Your task to perform on an android device: open app "WhatsApp Messenger" (install if not already installed) Image 0: 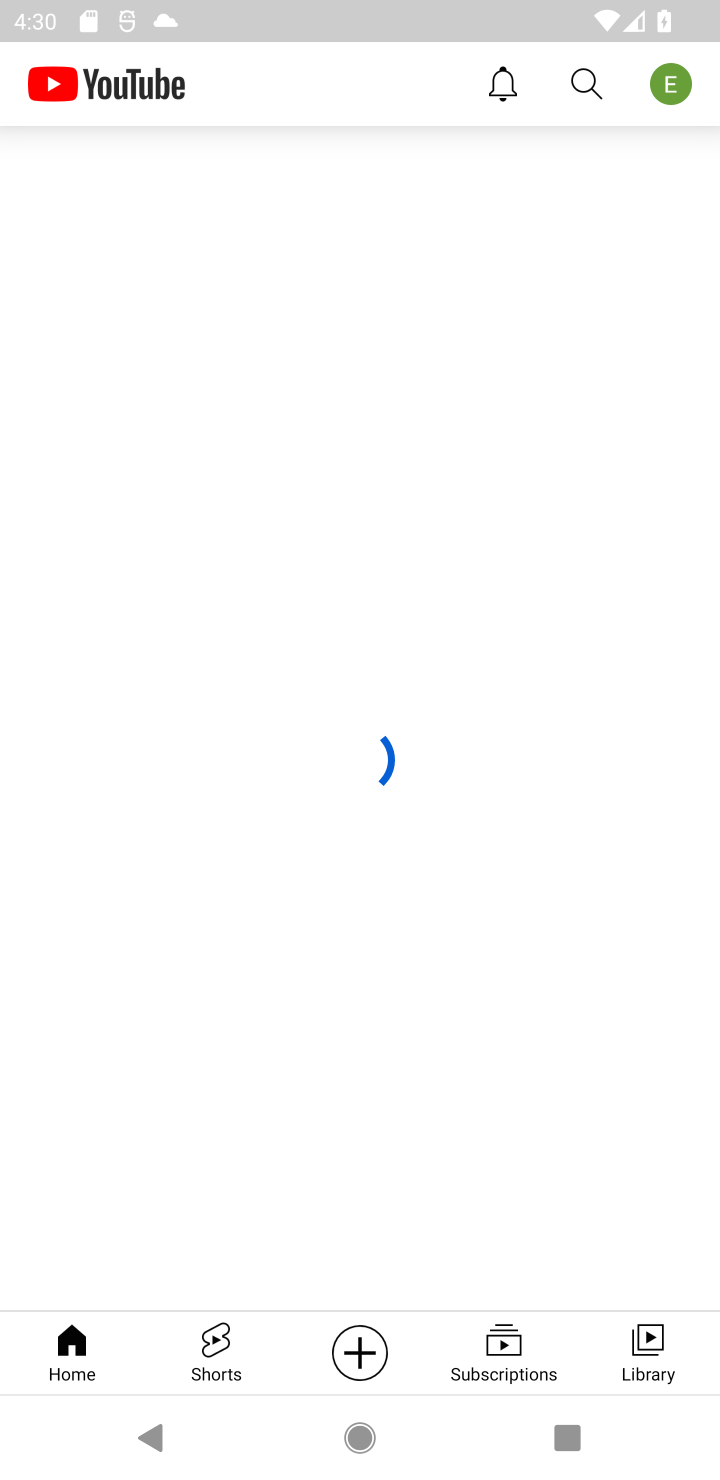
Step 0: press home button
Your task to perform on an android device: open app "WhatsApp Messenger" (install if not already installed) Image 1: 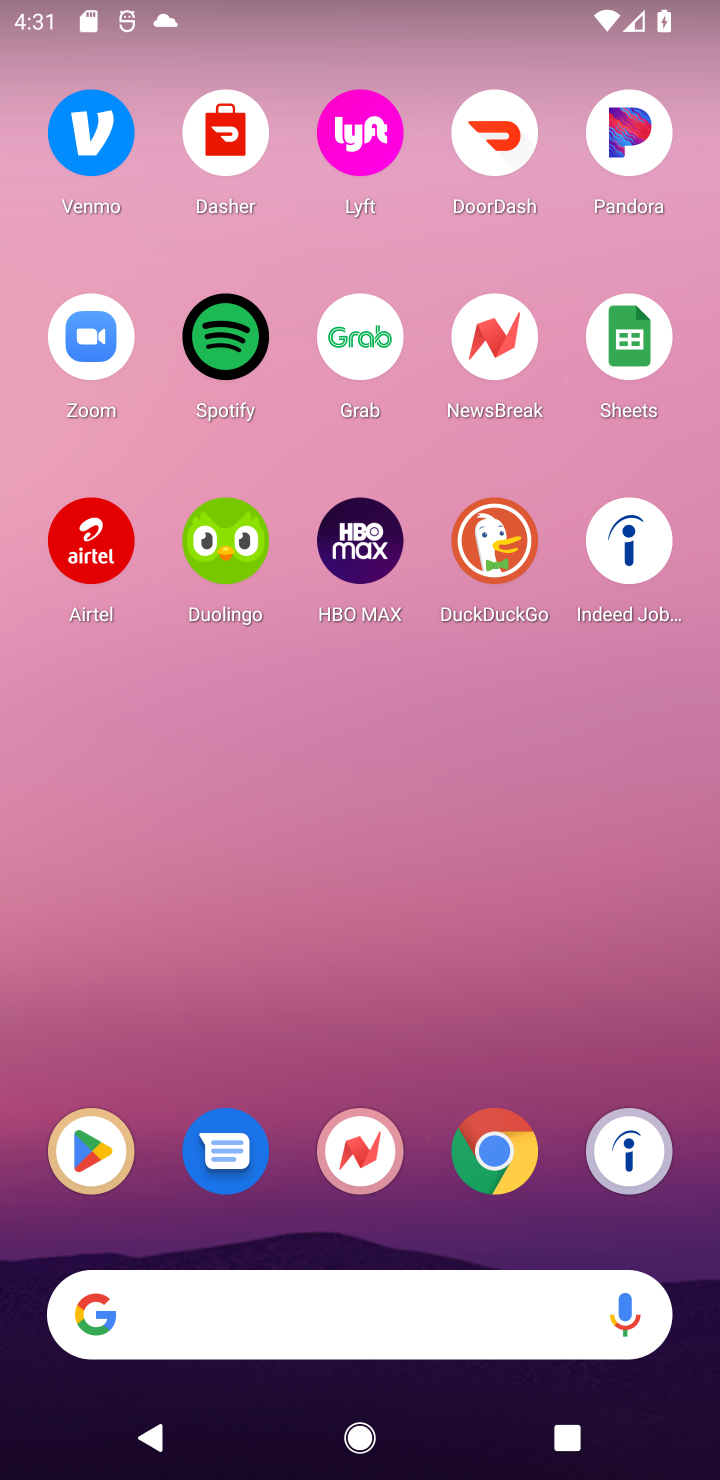
Step 1: drag from (303, 1263) to (454, 269)
Your task to perform on an android device: open app "WhatsApp Messenger" (install if not already installed) Image 2: 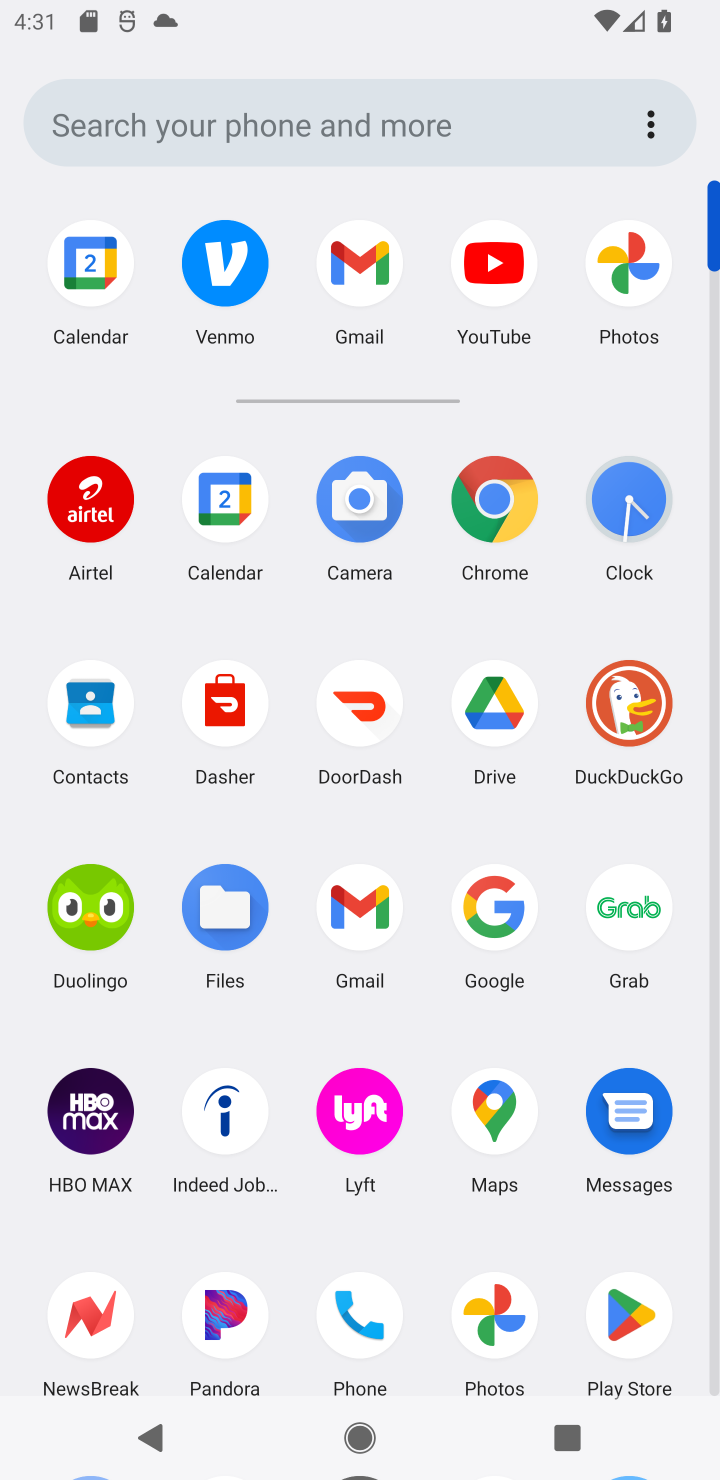
Step 2: drag from (348, 1077) to (428, 529)
Your task to perform on an android device: open app "WhatsApp Messenger" (install if not already installed) Image 3: 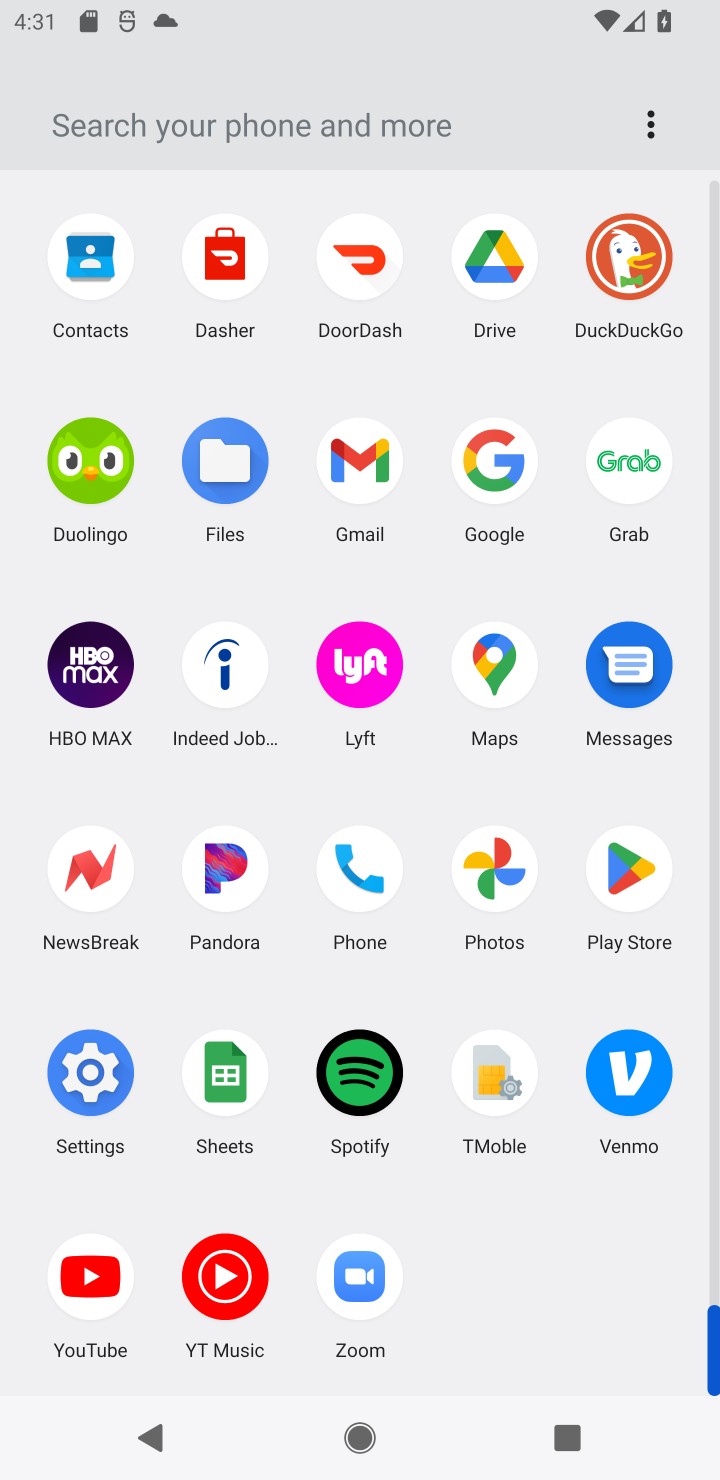
Step 3: click (621, 895)
Your task to perform on an android device: open app "WhatsApp Messenger" (install if not already installed) Image 4: 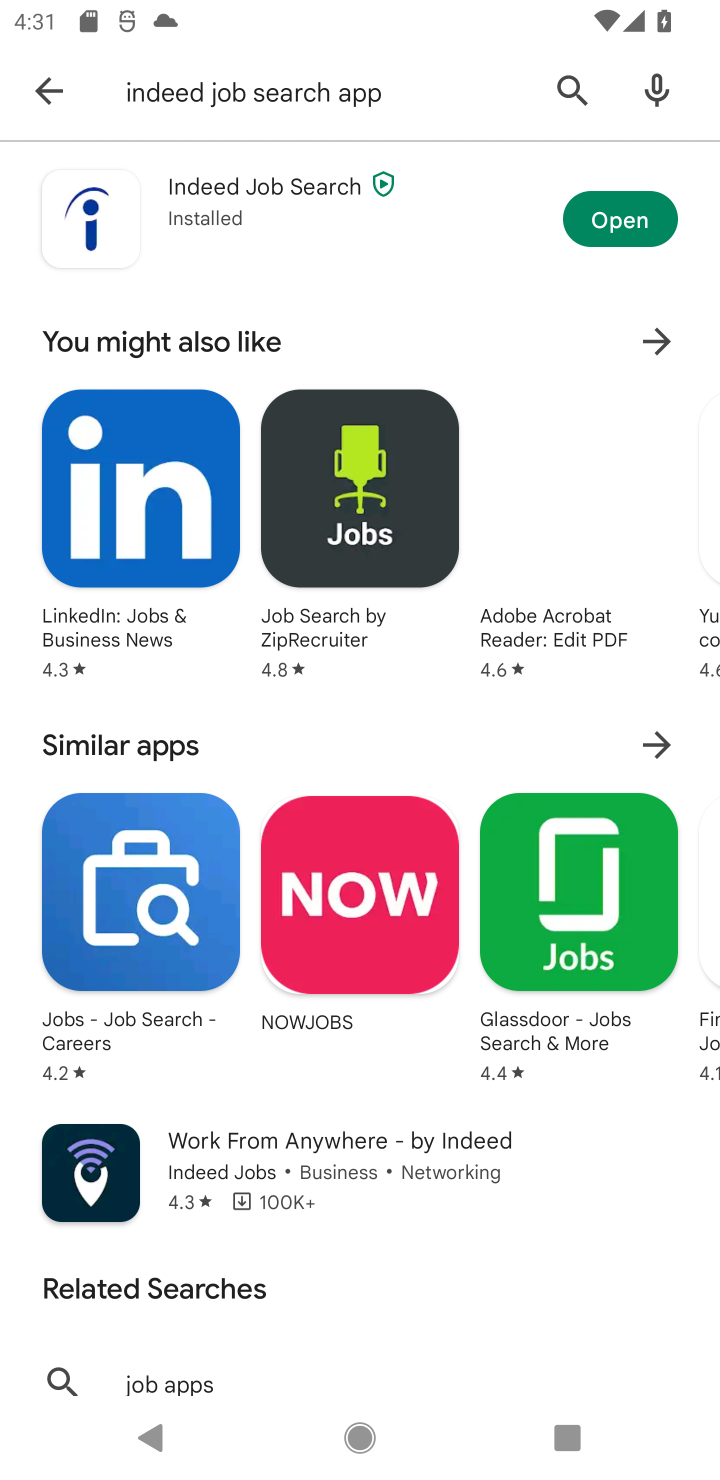
Step 4: click (41, 89)
Your task to perform on an android device: open app "WhatsApp Messenger" (install if not already installed) Image 5: 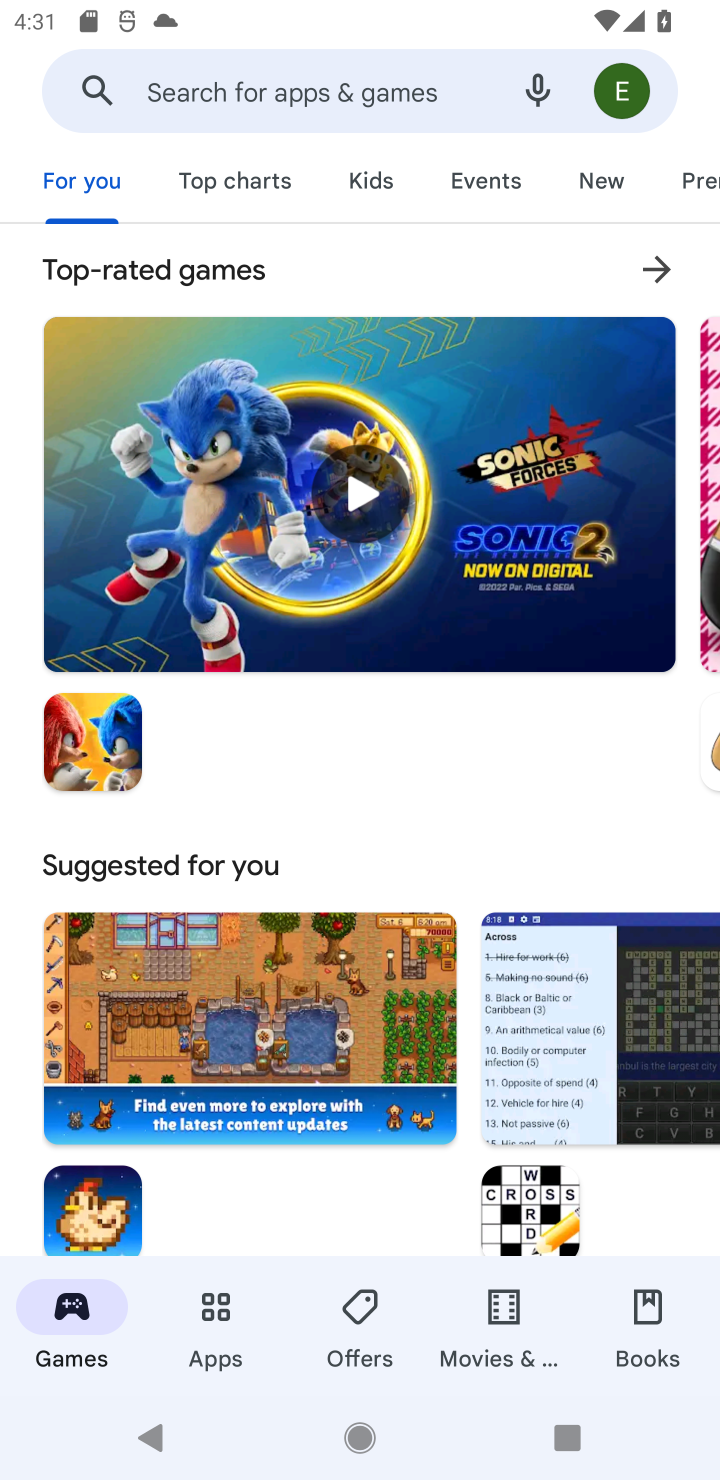
Step 5: click (298, 108)
Your task to perform on an android device: open app "WhatsApp Messenger" (install if not already installed) Image 6: 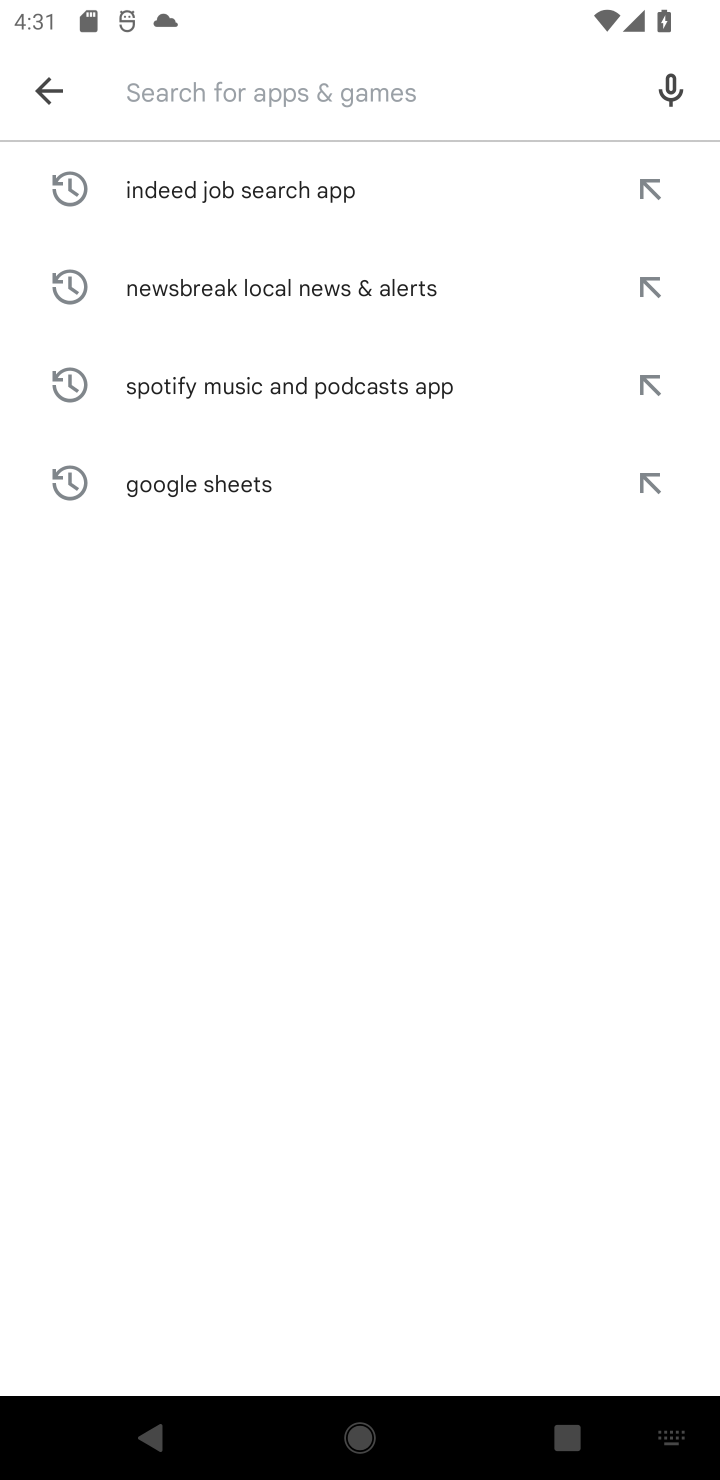
Step 6: type "WhatsApp Messenger"
Your task to perform on an android device: open app "WhatsApp Messenger" (install if not already installed) Image 7: 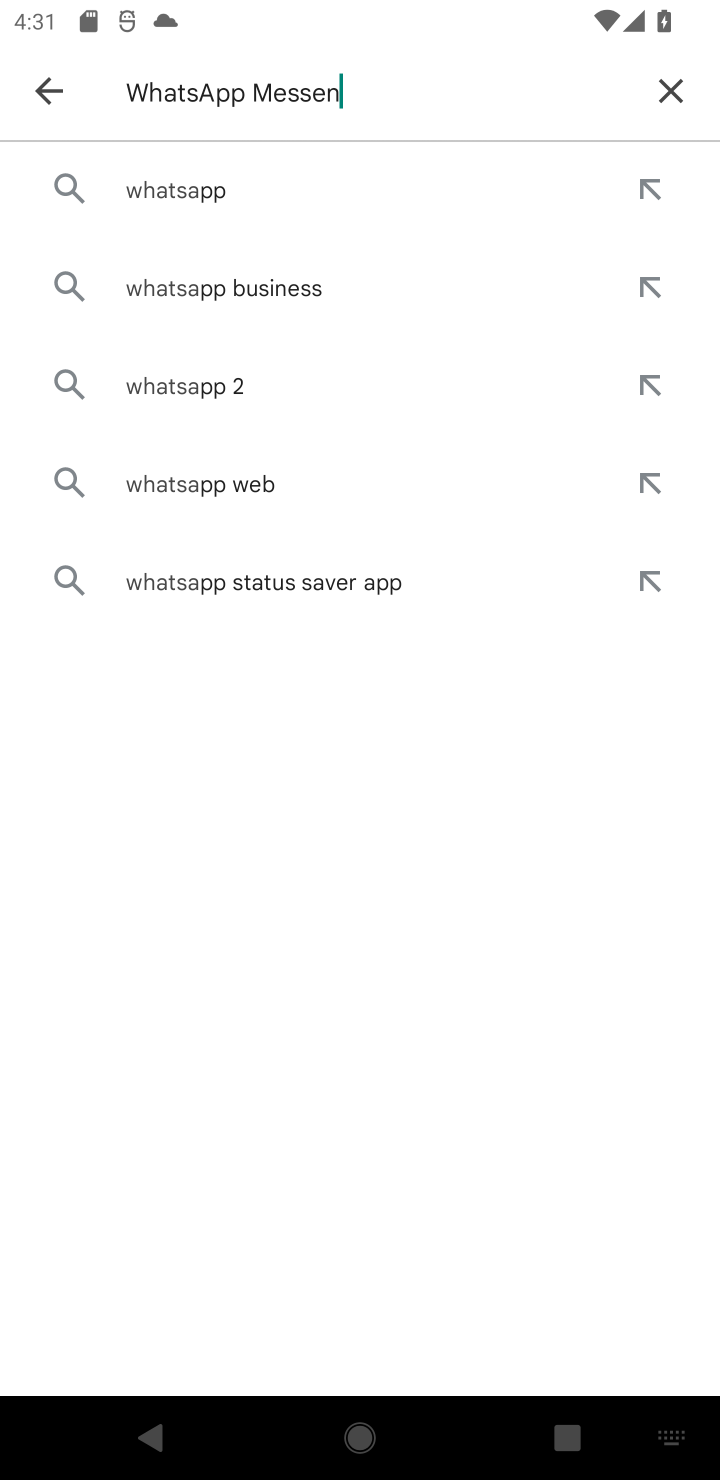
Step 7: type ""
Your task to perform on an android device: open app "WhatsApp Messenger" (install if not already installed) Image 8: 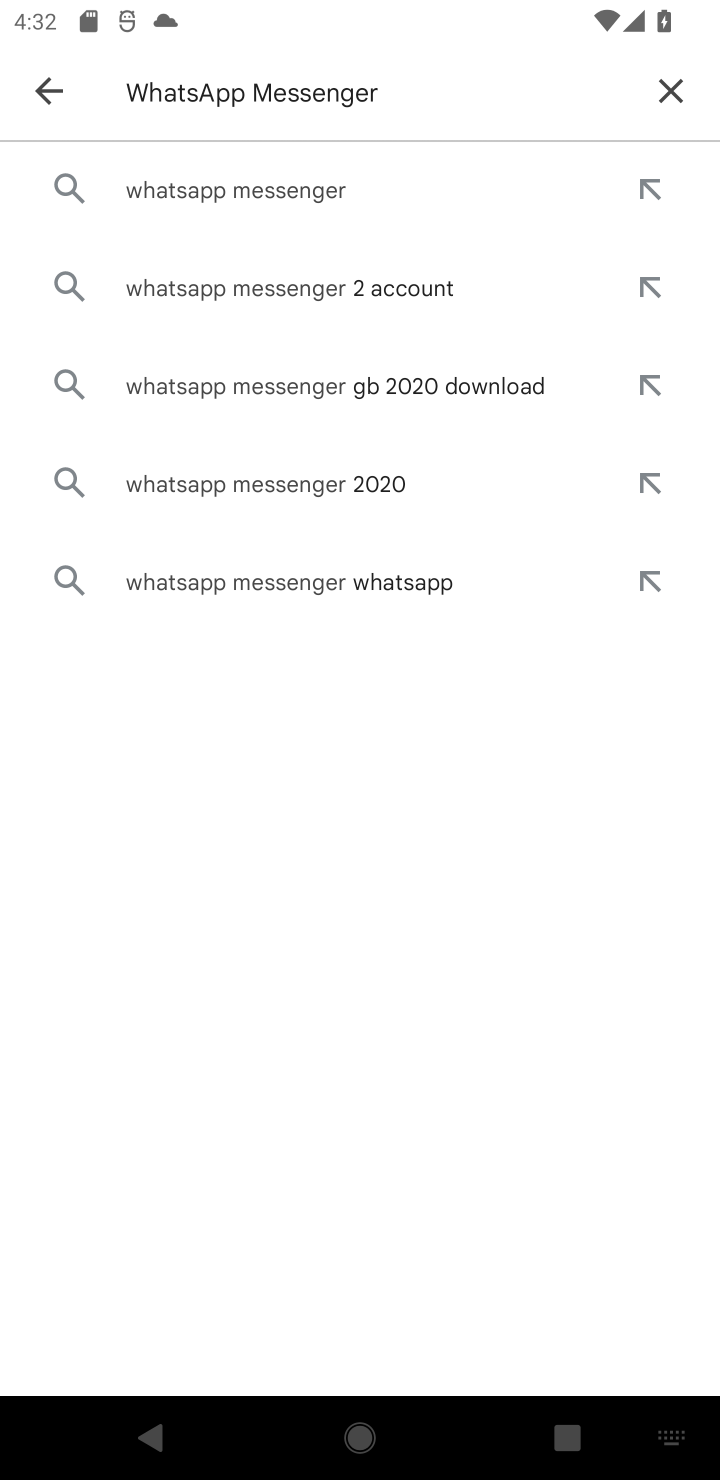
Step 8: click (343, 179)
Your task to perform on an android device: open app "WhatsApp Messenger" (install if not already installed) Image 9: 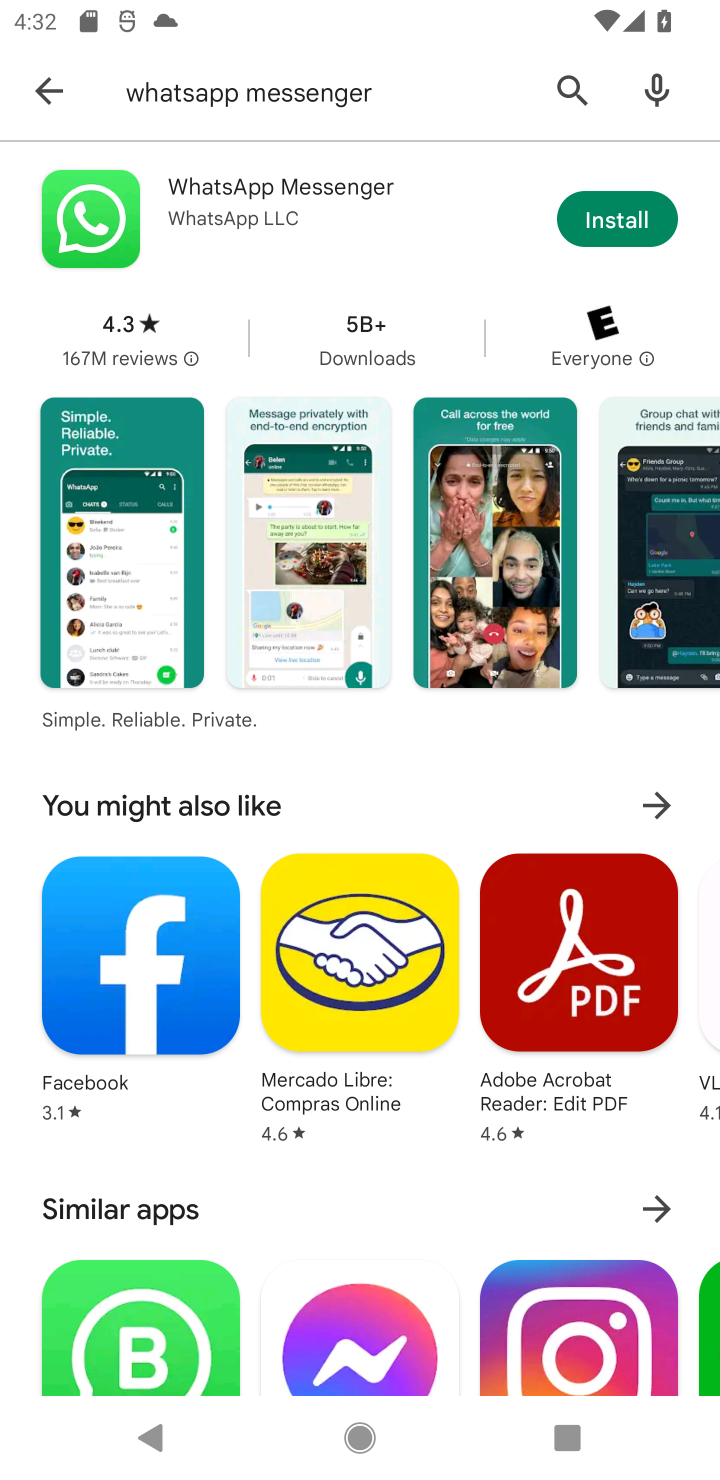
Step 9: click (631, 214)
Your task to perform on an android device: open app "WhatsApp Messenger" (install if not already installed) Image 10: 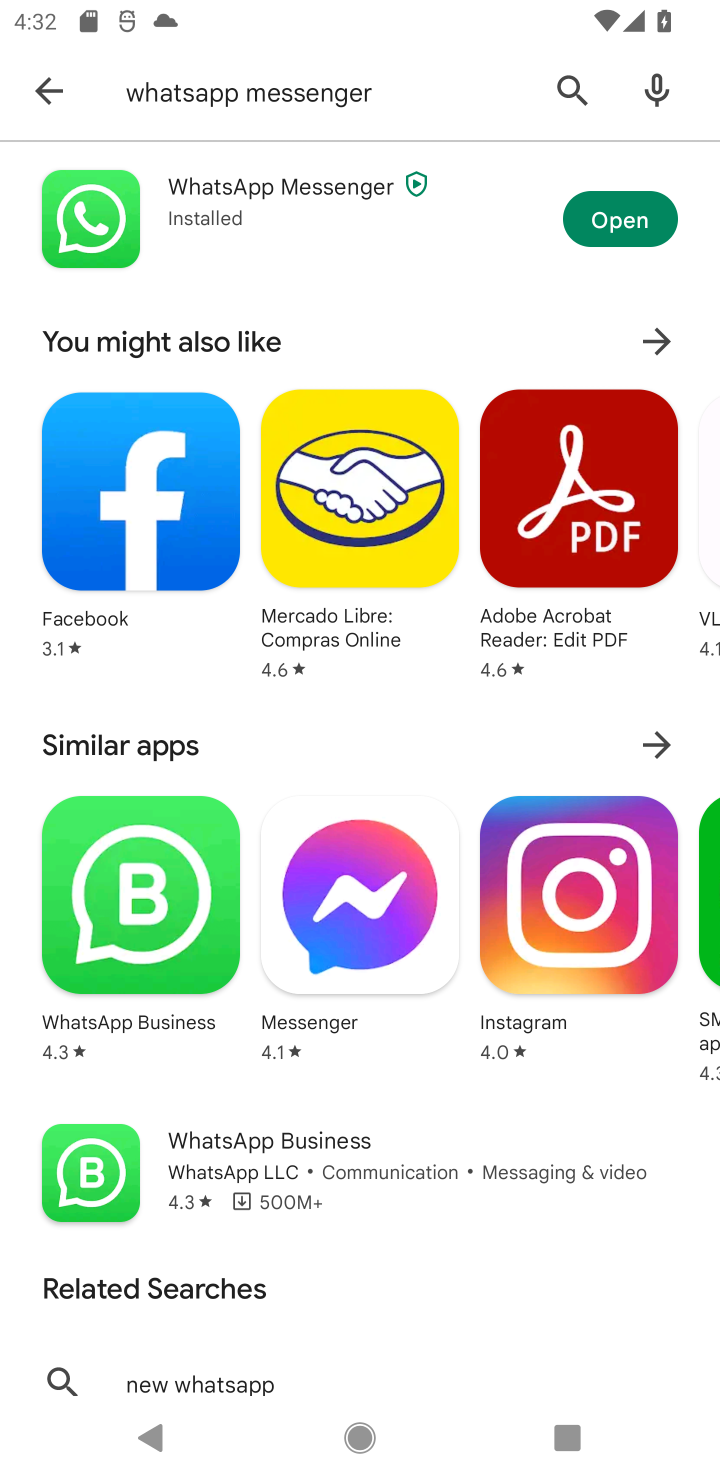
Step 10: click (641, 214)
Your task to perform on an android device: open app "WhatsApp Messenger" (install if not already installed) Image 11: 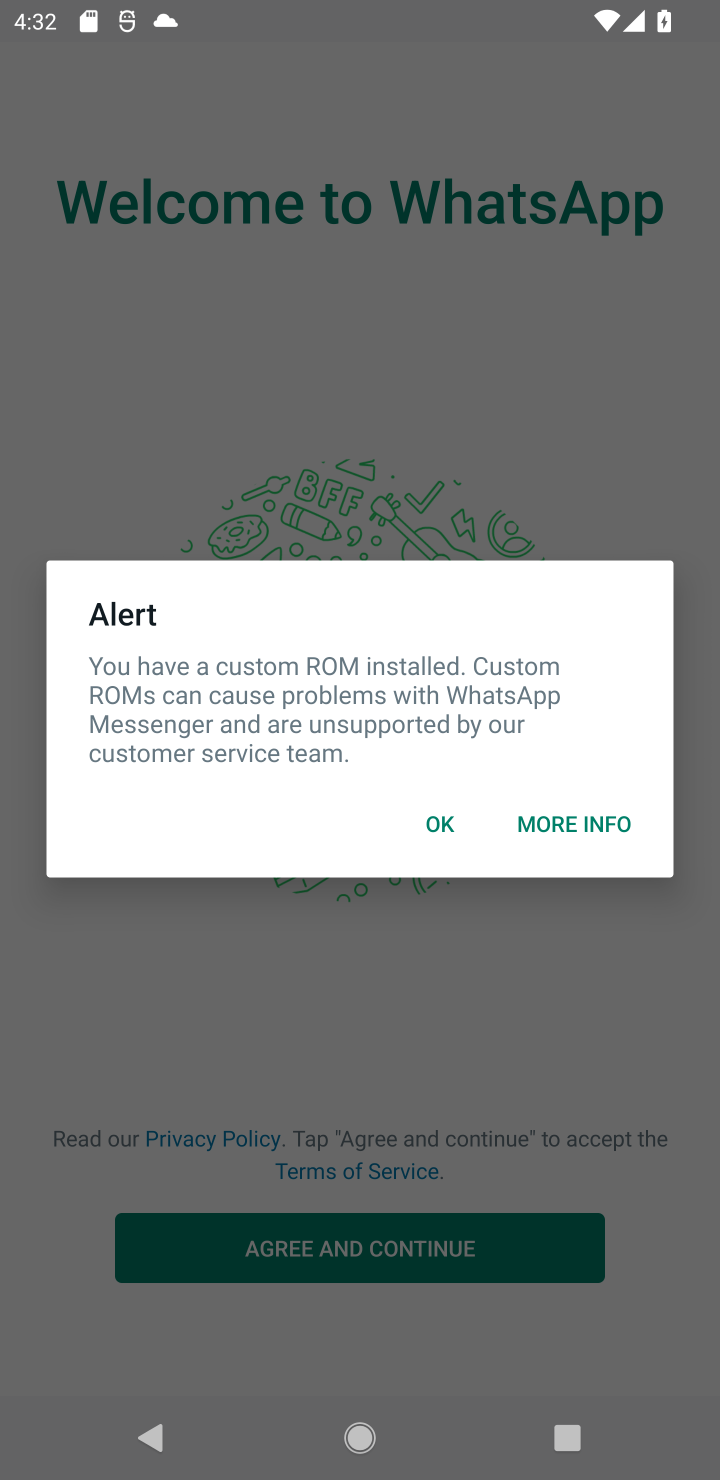
Step 11: task complete